Your task to perform on an android device: Open maps Image 0: 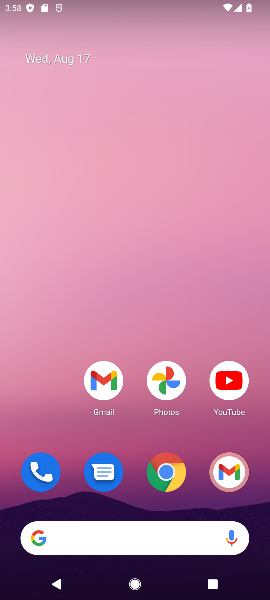
Step 0: drag from (138, 440) to (137, 189)
Your task to perform on an android device: Open maps Image 1: 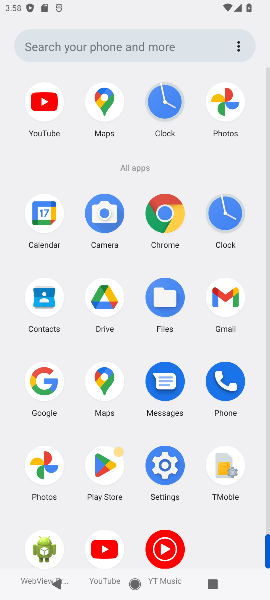
Step 1: click (97, 111)
Your task to perform on an android device: Open maps Image 2: 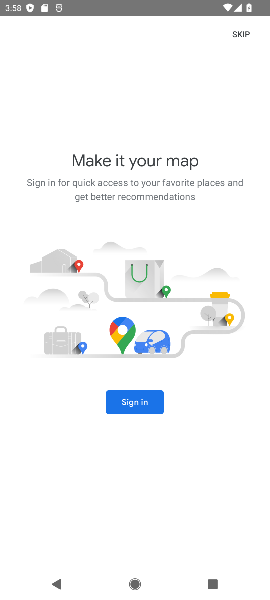
Step 2: task complete